Your task to perform on an android device: check data usage Image 0: 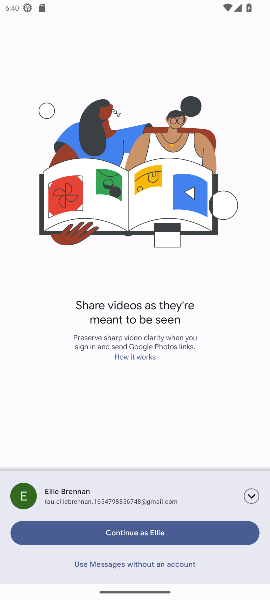
Step 0: task complete